Your task to perform on an android device: change text size in settings app Image 0: 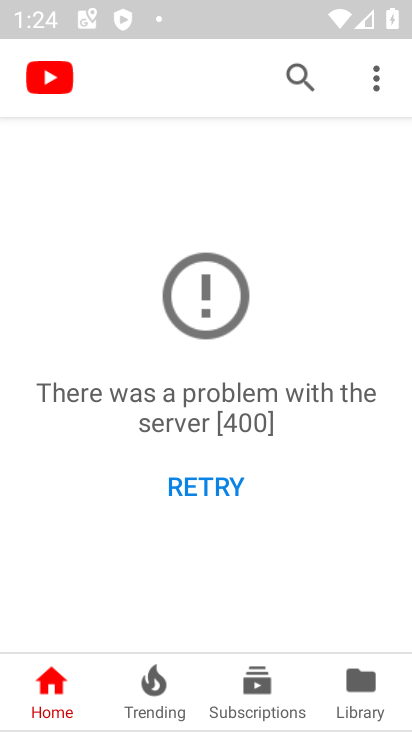
Step 0: press home button
Your task to perform on an android device: change text size in settings app Image 1: 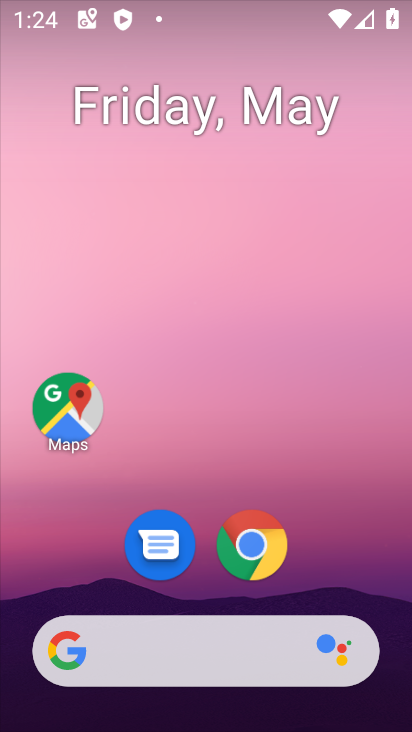
Step 1: drag from (332, 447) to (208, 3)
Your task to perform on an android device: change text size in settings app Image 2: 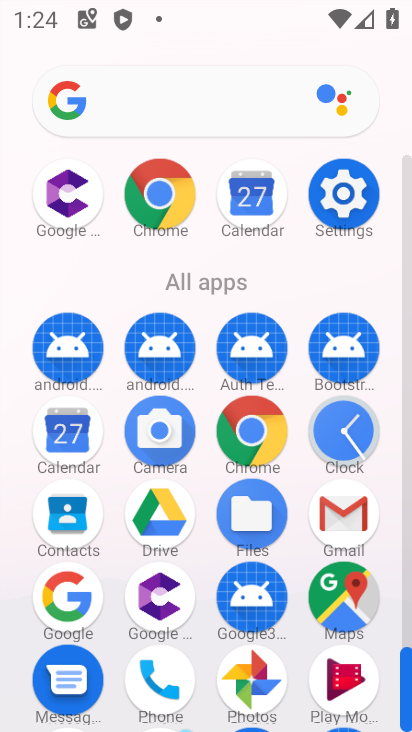
Step 2: click (343, 184)
Your task to perform on an android device: change text size in settings app Image 3: 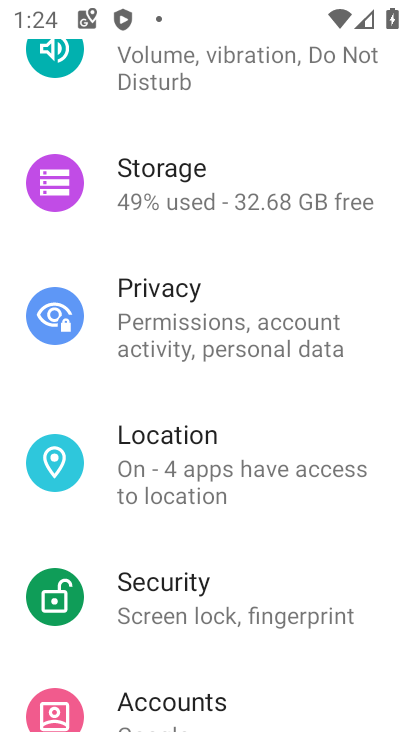
Step 3: drag from (246, 143) to (241, 645)
Your task to perform on an android device: change text size in settings app Image 4: 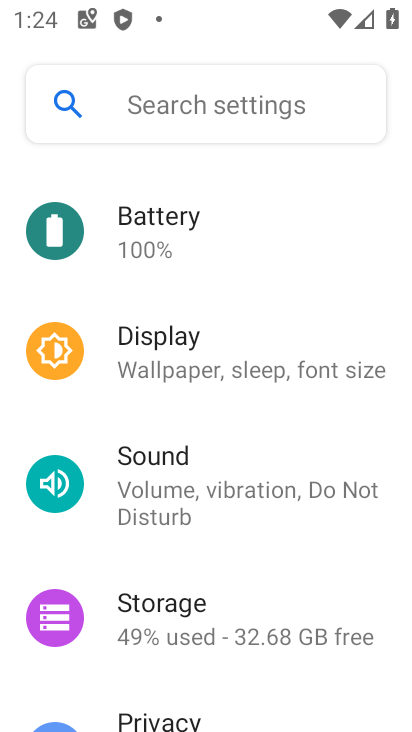
Step 4: click (204, 333)
Your task to perform on an android device: change text size in settings app Image 5: 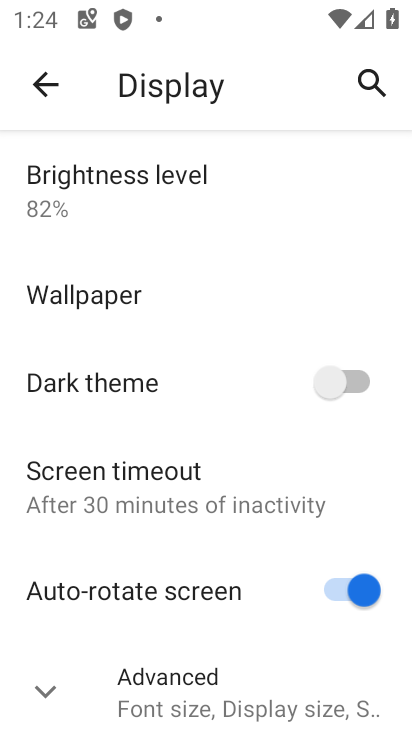
Step 5: click (231, 699)
Your task to perform on an android device: change text size in settings app Image 6: 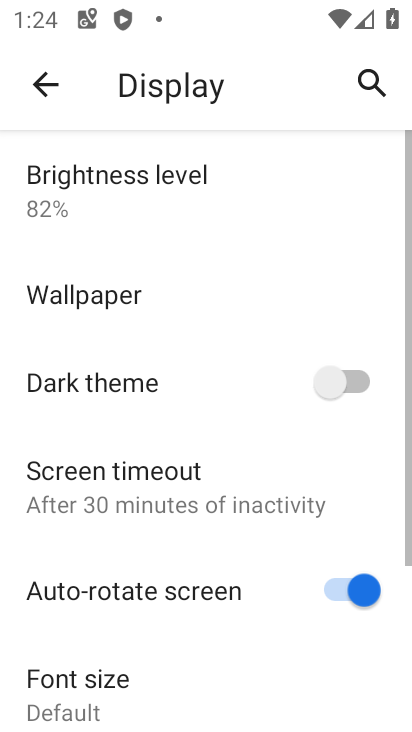
Step 6: click (139, 695)
Your task to perform on an android device: change text size in settings app Image 7: 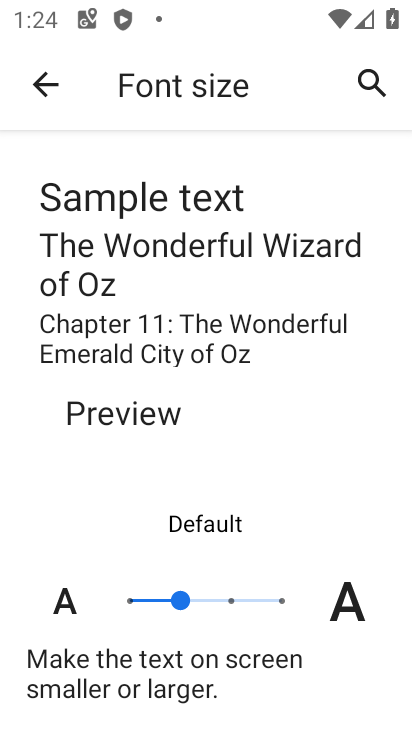
Step 7: click (125, 602)
Your task to perform on an android device: change text size in settings app Image 8: 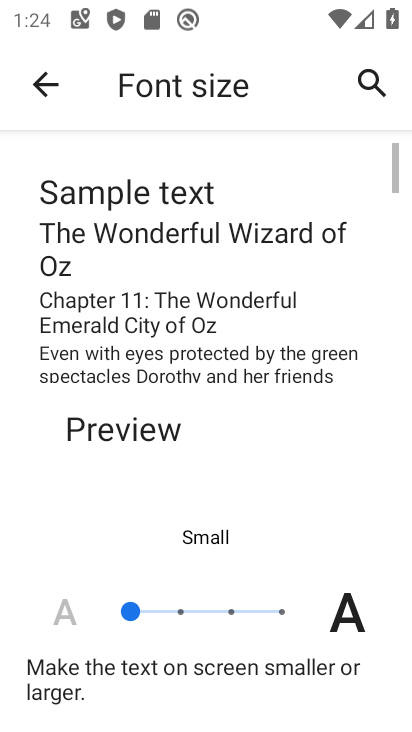
Step 8: task complete